Your task to perform on an android device: clear all cookies in the chrome app Image 0: 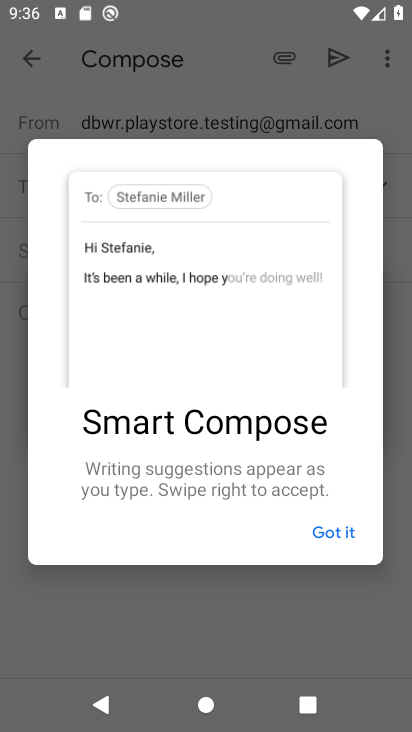
Step 0: press home button
Your task to perform on an android device: clear all cookies in the chrome app Image 1: 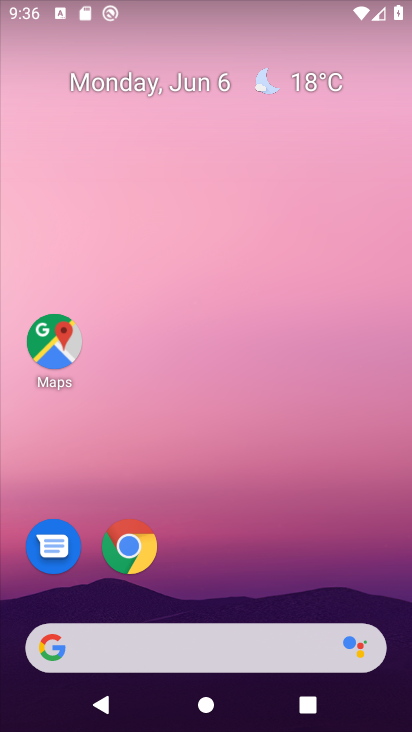
Step 1: click (128, 545)
Your task to perform on an android device: clear all cookies in the chrome app Image 2: 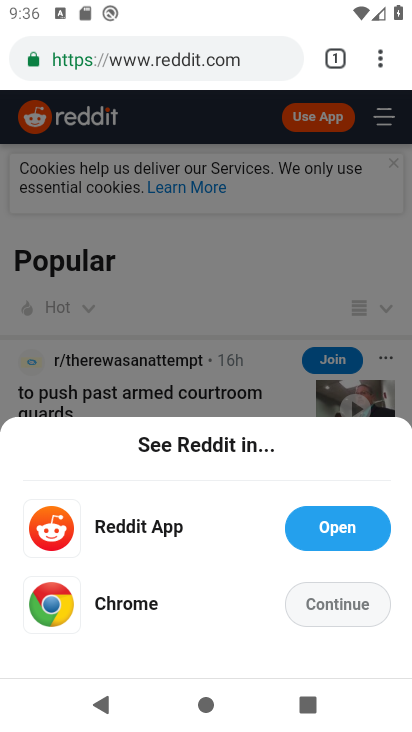
Step 2: click (380, 64)
Your task to perform on an android device: clear all cookies in the chrome app Image 3: 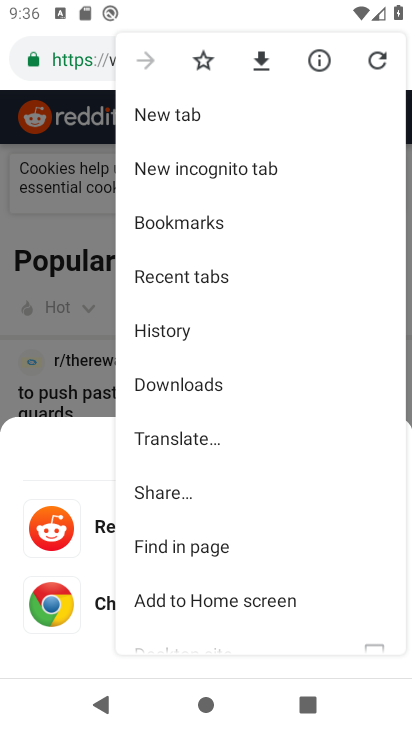
Step 3: click (139, 328)
Your task to perform on an android device: clear all cookies in the chrome app Image 4: 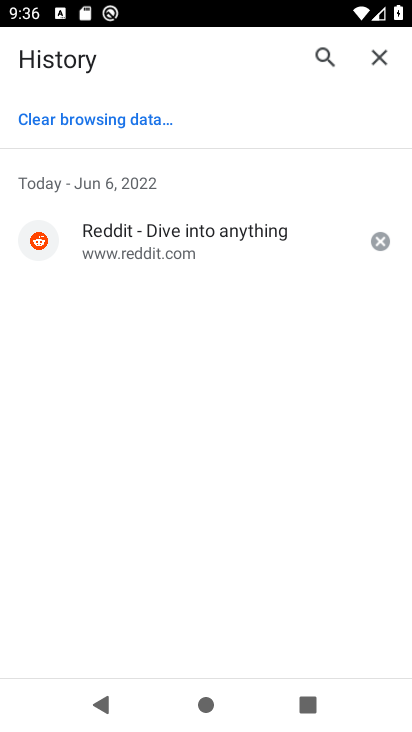
Step 4: click (103, 118)
Your task to perform on an android device: clear all cookies in the chrome app Image 5: 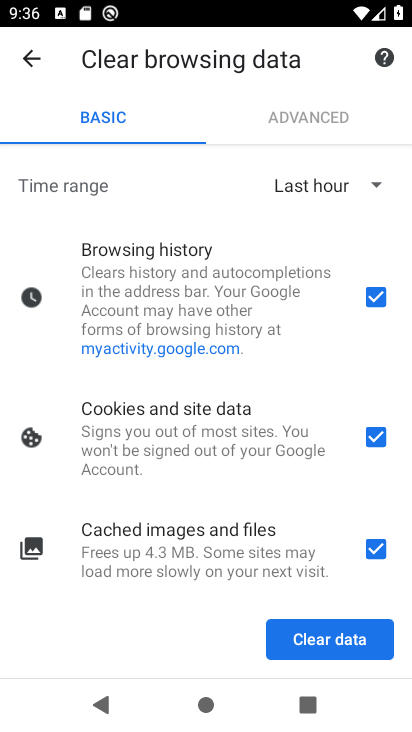
Step 5: click (373, 294)
Your task to perform on an android device: clear all cookies in the chrome app Image 6: 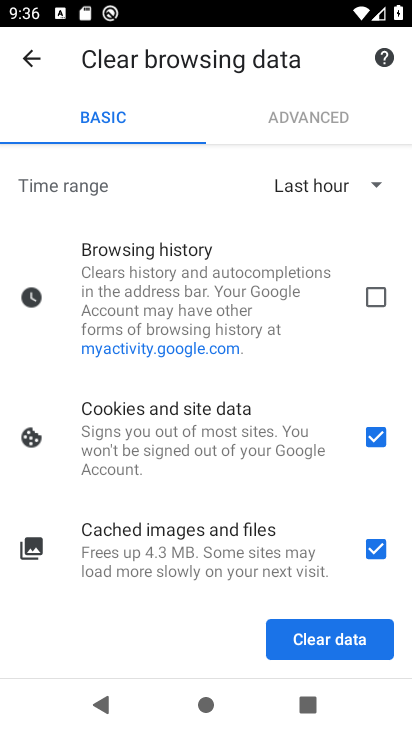
Step 6: click (377, 545)
Your task to perform on an android device: clear all cookies in the chrome app Image 7: 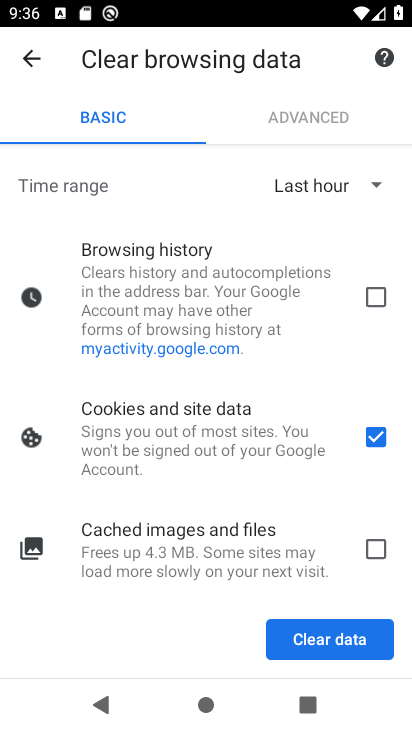
Step 7: click (323, 635)
Your task to perform on an android device: clear all cookies in the chrome app Image 8: 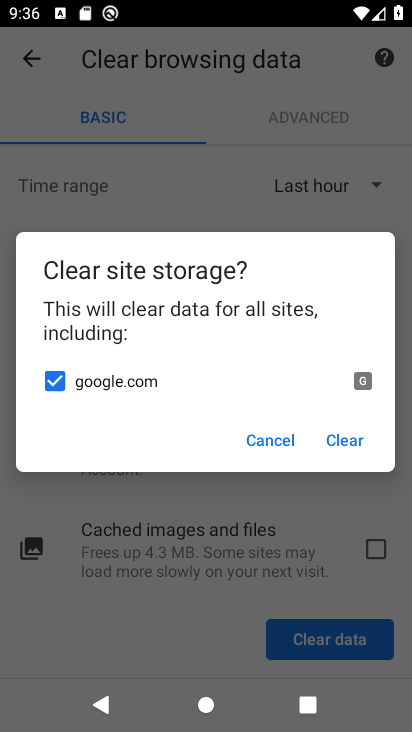
Step 8: click (339, 445)
Your task to perform on an android device: clear all cookies in the chrome app Image 9: 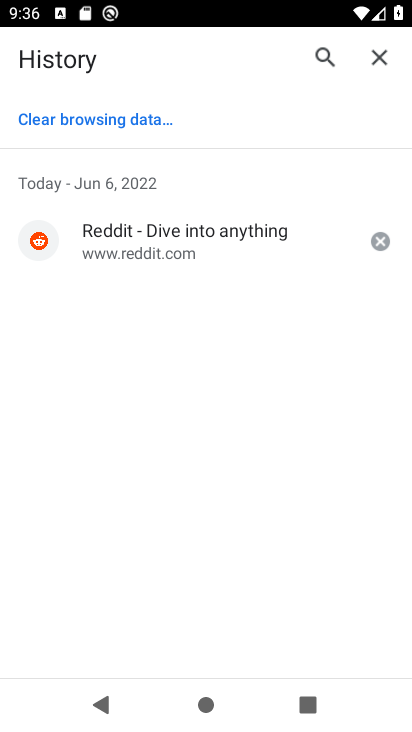
Step 9: task complete